Your task to perform on an android device: What's on my calendar tomorrow? Image 0: 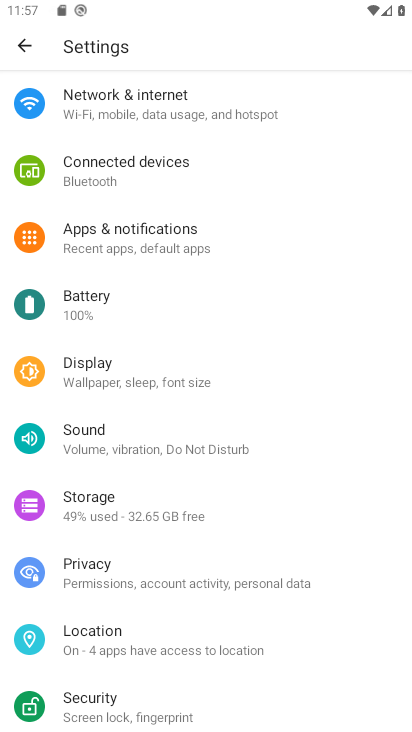
Step 0: press back button
Your task to perform on an android device: What's on my calendar tomorrow? Image 1: 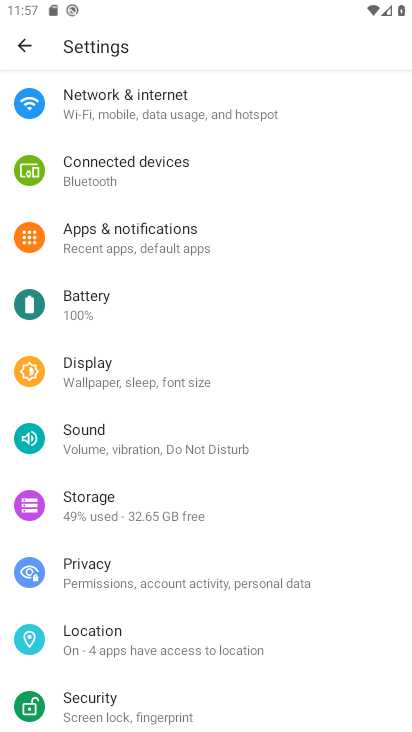
Step 1: press back button
Your task to perform on an android device: What's on my calendar tomorrow? Image 2: 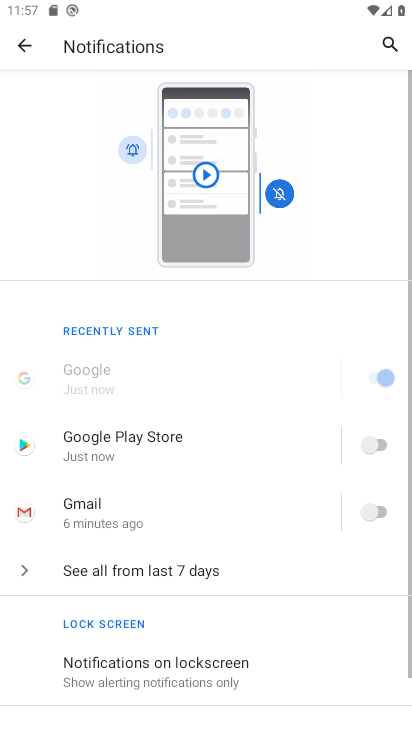
Step 2: press back button
Your task to perform on an android device: What's on my calendar tomorrow? Image 3: 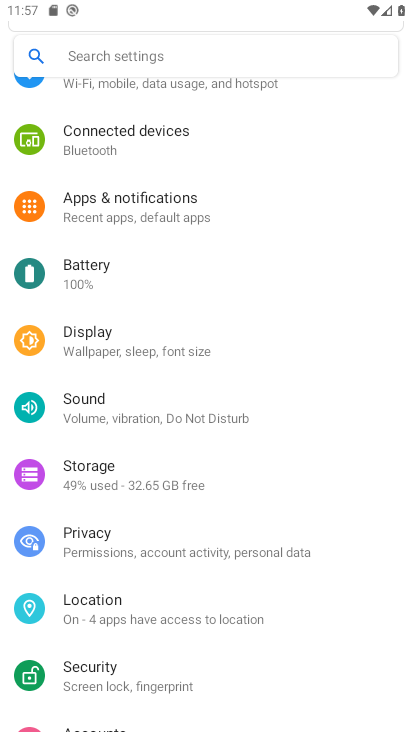
Step 3: press back button
Your task to perform on an android device: What's on my calendar tomorrow? Image 4: 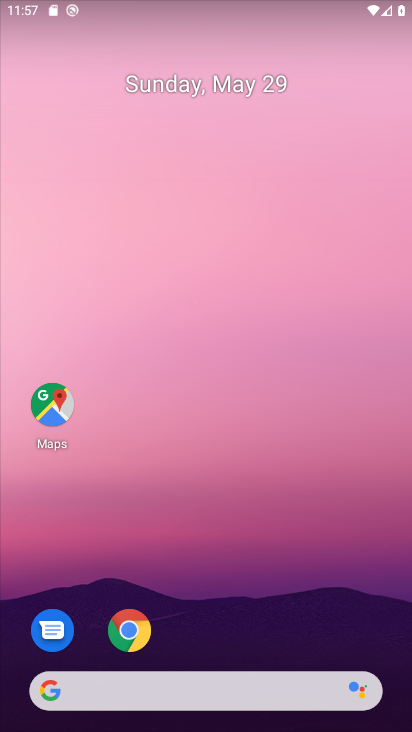
Step 4: drag from (236, 659) to (161, 131)
Your task to perform on an android device: What's on my calendar tomorrow? Image 5: 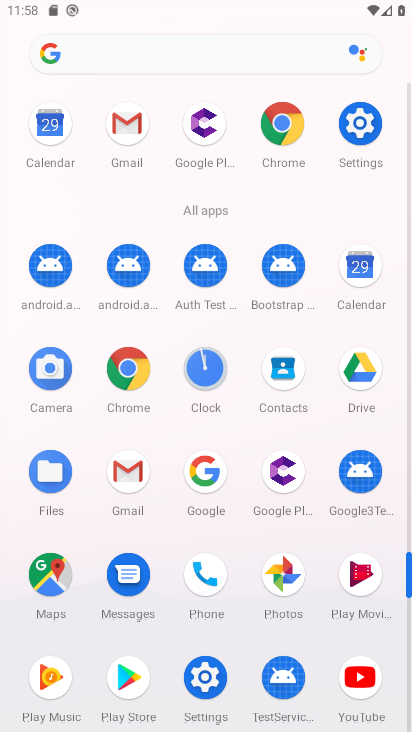
Step 5: click (354, 262)
Your task to perform on an android device: What's on my calendar tomorrow? Image 6: 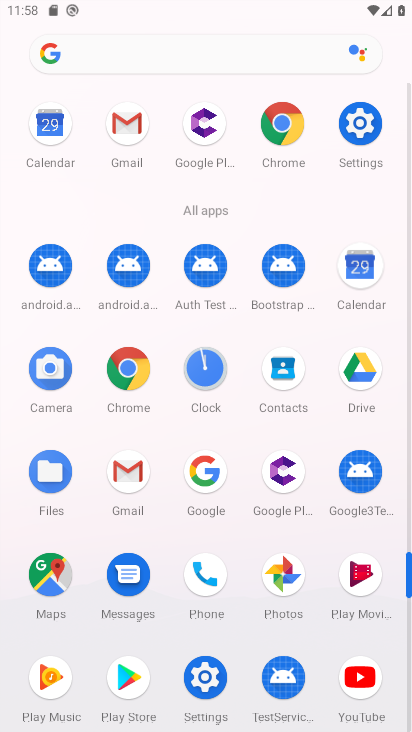
Step 6: click (354, 262)
Your task to perform on an android device: What's on my calendar tomorrow? Image 7: 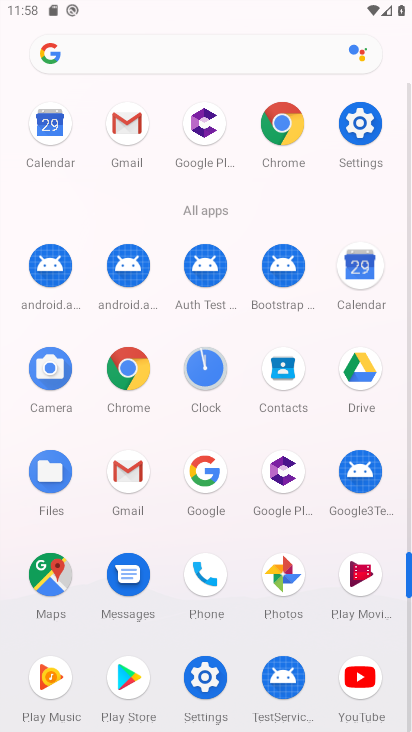
Step 7: click (355, 261)
Your task to perform on an android device: What's on my calendar tomorrow? Image 8: 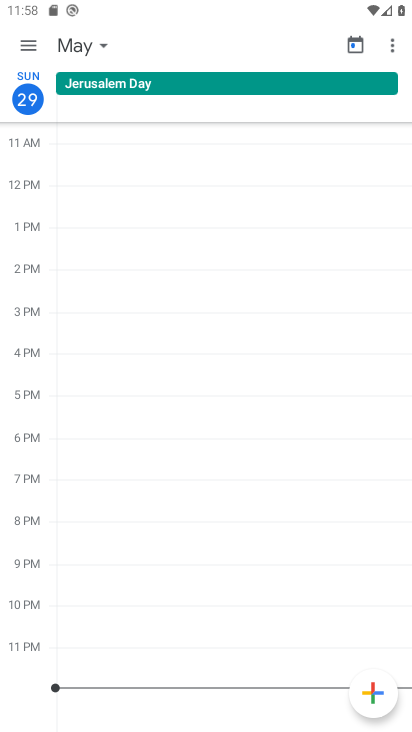
Step 8: click (92, 51)
Your task to perform on an android device: What's on my calendar tomorrow? Image 9: 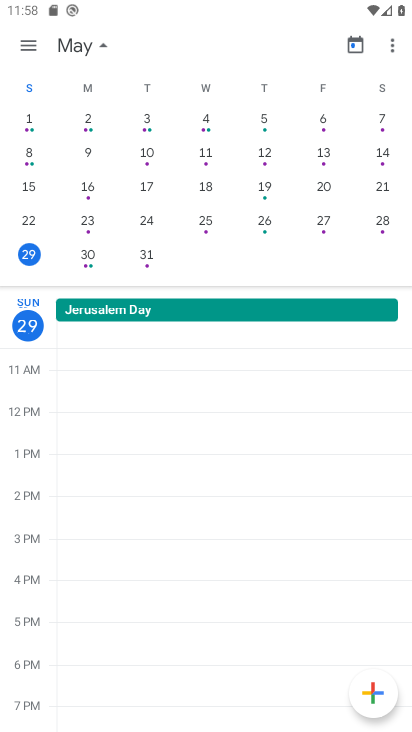
Step 9: click (141, 260)
Your task to perform on an android device: What's on my calendar tomorrow? Image 10: 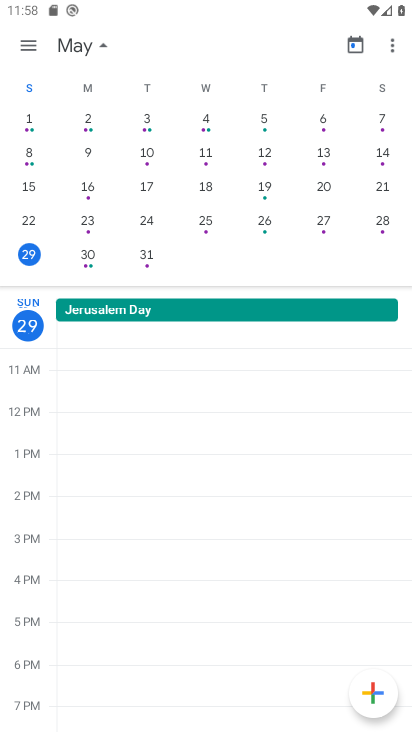
Step 10: click (143, 259)
Your task to perform on an android device: What's on my calendar tomorrow? Image 11: 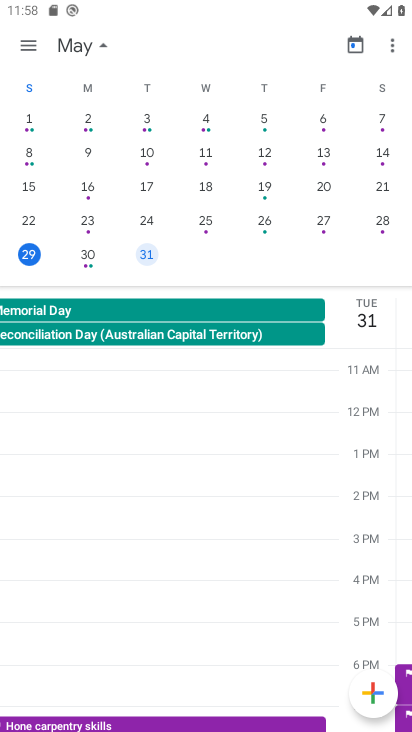
Step 11: click (146, 254)
Your task to perform on an android device: What's on my calendar tomorrow? Image 12: 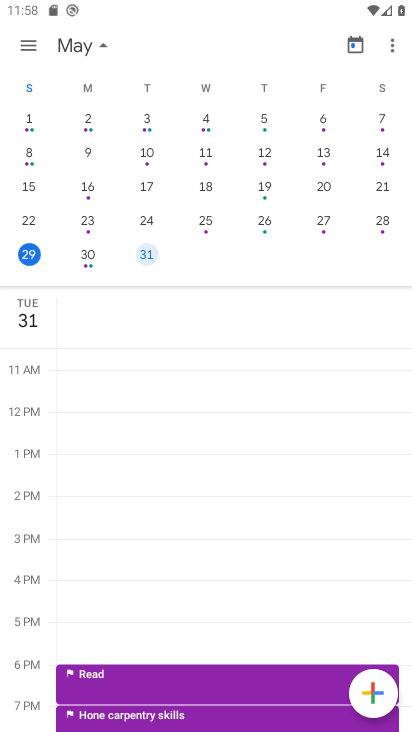
Step 12: click (150, 247)
Your task to perform on an android device: What's on my calendar tomorrow? Image 13: 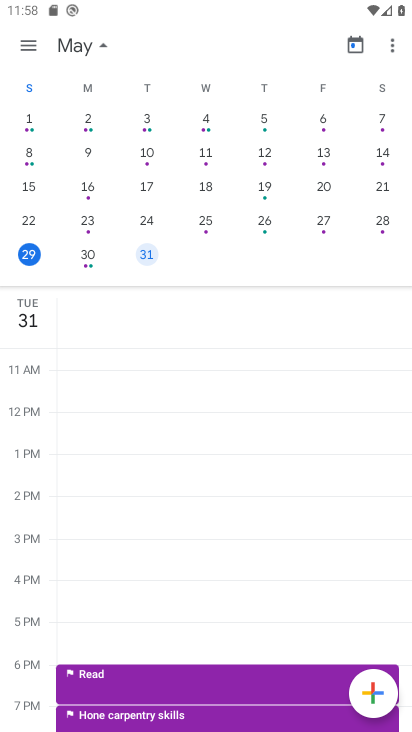
Step 13: click (155, 241)
Your task to perform on an android device: What's on my calendar tomorrow? Image 14: 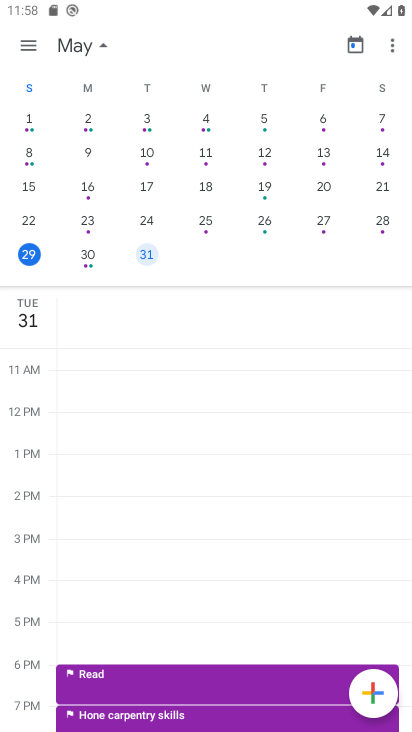
Step 14: task complete